Your task to perform on an android device: Open location settings Image 0: 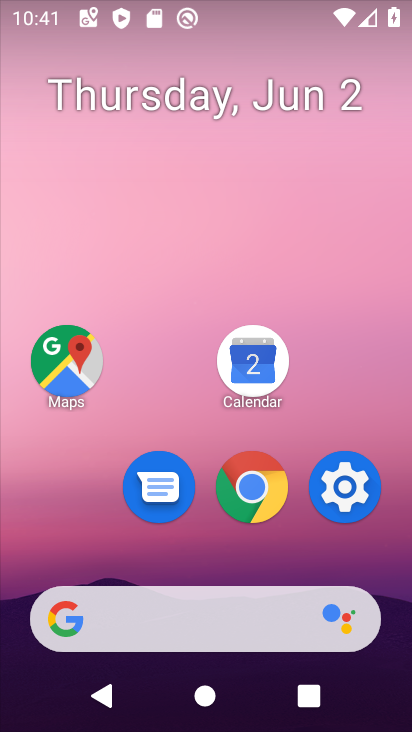
Step 0: press home button
Your task to perform on an android device: Open location settings Image 1: 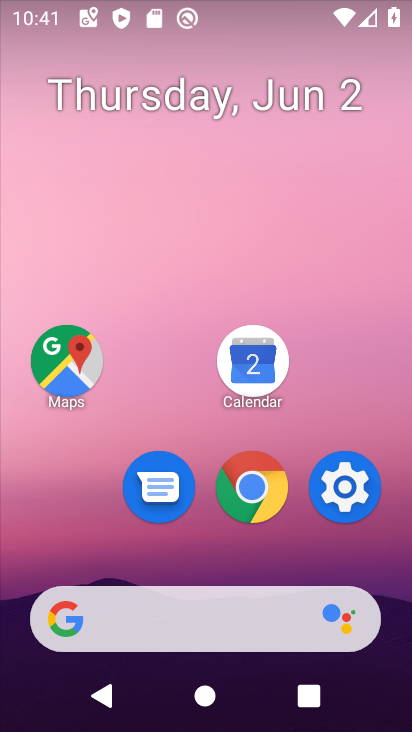
Step 1: drag from (268, 628) to (230, 76)
Your task to perform on an android device: Open location settings Image 2: 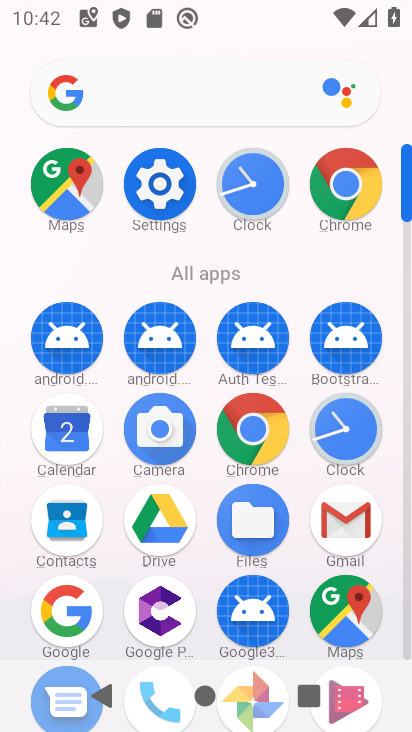
Step 2: click (171, 180)
Your task to perform on an android device: Open location settings Image 3: 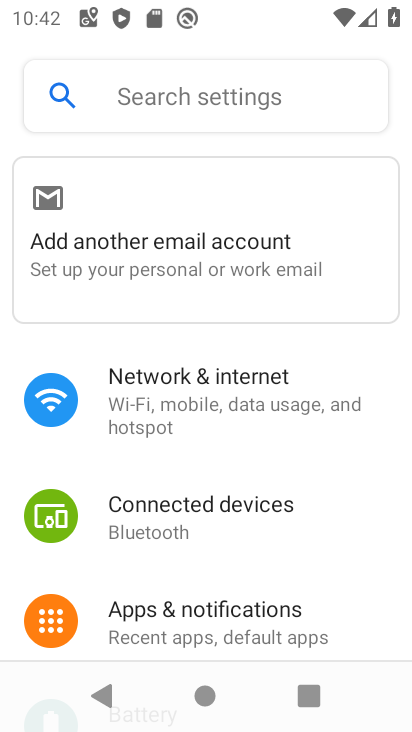
Step 3: click (166, 84)
Your task to perform on an android device: Open location settings Image 4: 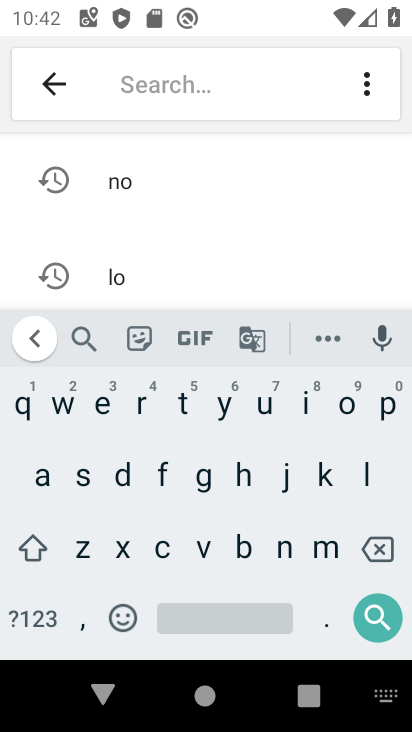
Step 4: click (361, 482)
Your task to perform on an android device: Open location settings Image 5: 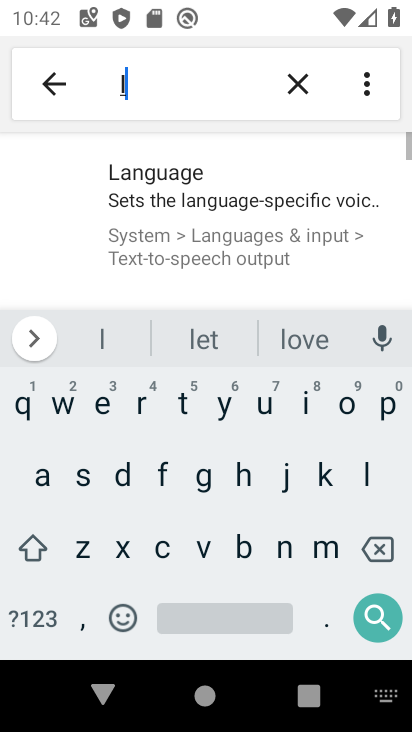
Step 5: click (346, 417)
Your task to perform on an android device: Open location settings Image 6: 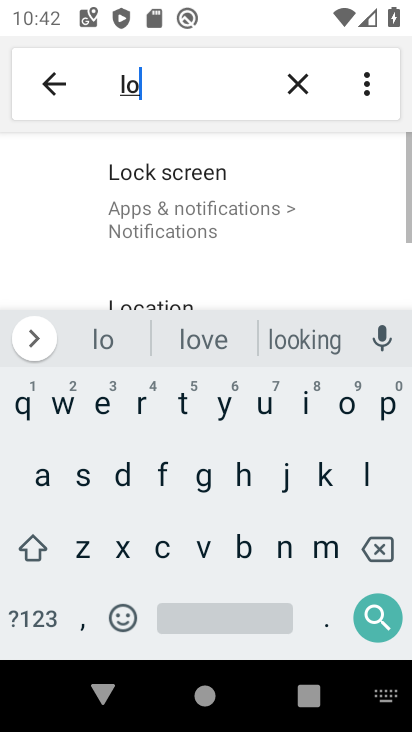
Step 6: drag from (194, 197) to (205, 135)
Your task to perform on an android device: Open location settings Image 7: 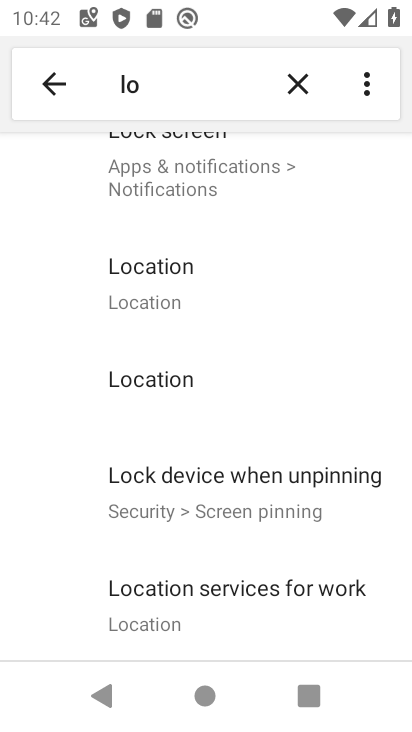
Step 7: click (153, 281)
Your task to perform on an android device: Open location settings Image 8: 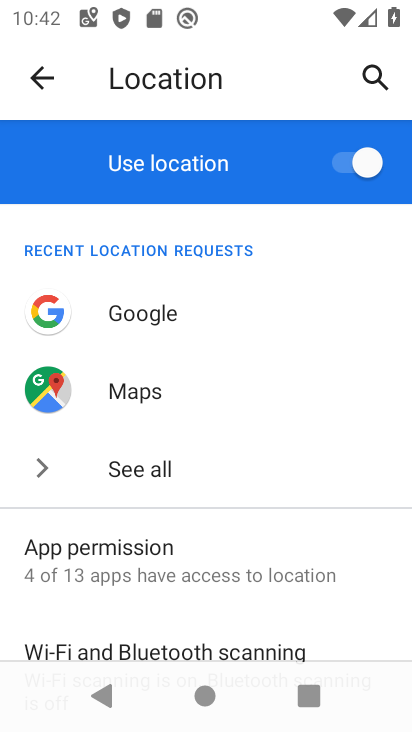
Step 8: task complete